Your task to perform on an android device: What is the recent news? Image 0: 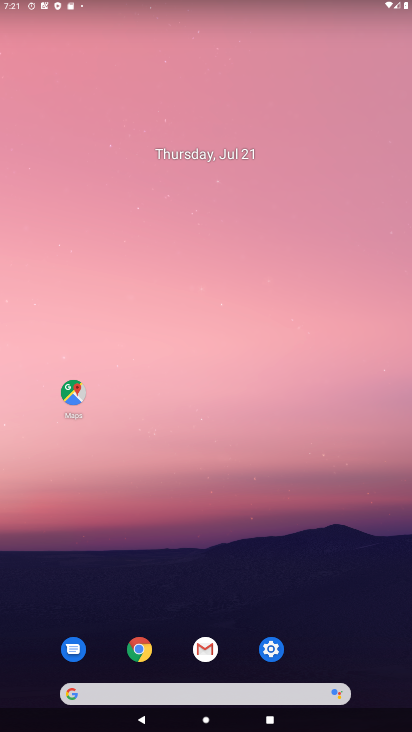
Step 0: click (216, 694)
Your task to perform on an android device: What is the recent news? Image 1: 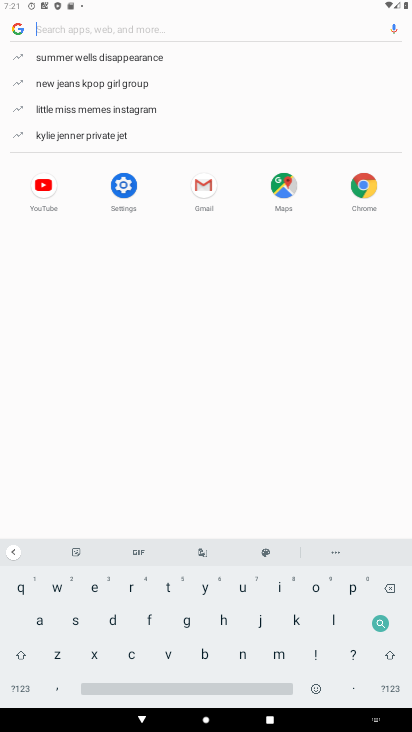
Step 1: click (127, 581)
Your task to perform on an android device: What is the recent news? Image 2: 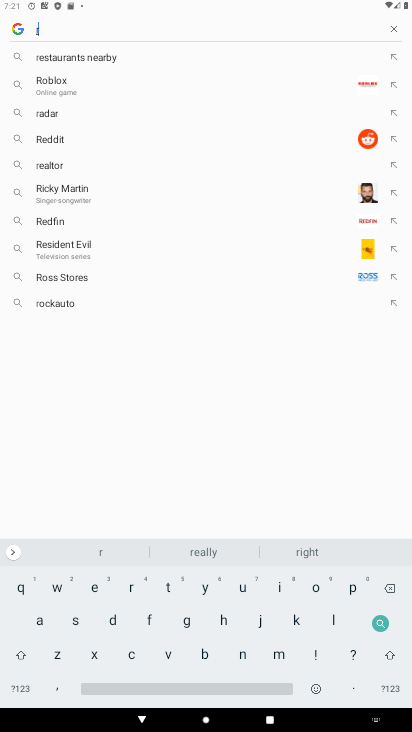
Step 2: click (93, 587)
Your task to perform on an android device: What is the recent news? Image 3: 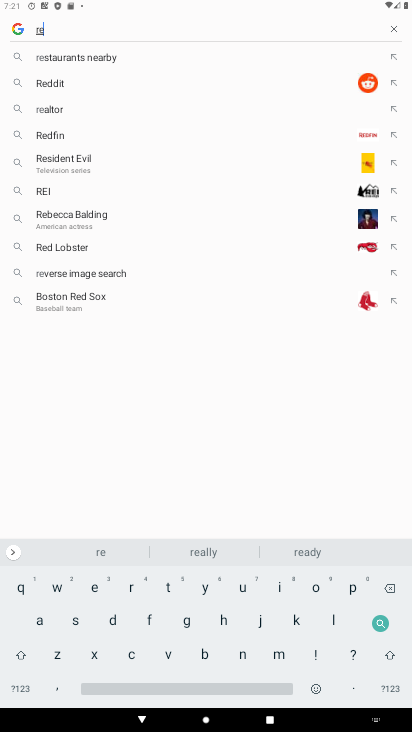
Step 3: click (125, 651)
Your task to perform on an android device: What is the recent news? Image 4: 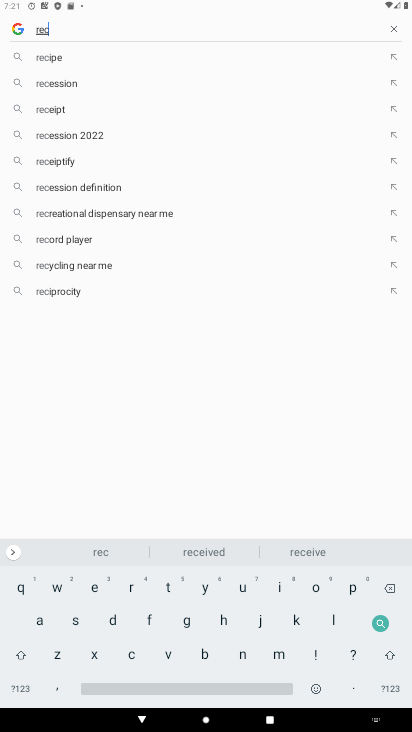
Step 4: click (95, 585)
Your task to perform on an android device: What is the recent news? Image 5: 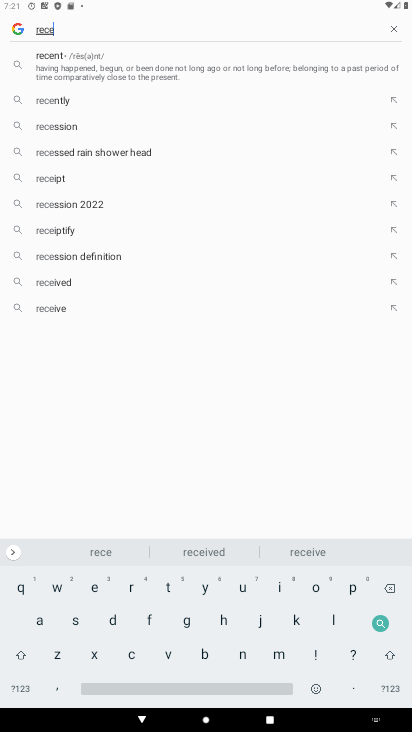
Step 5: click (244, 654)
Your task to perform on an android device: What is the recent news? Image 6: 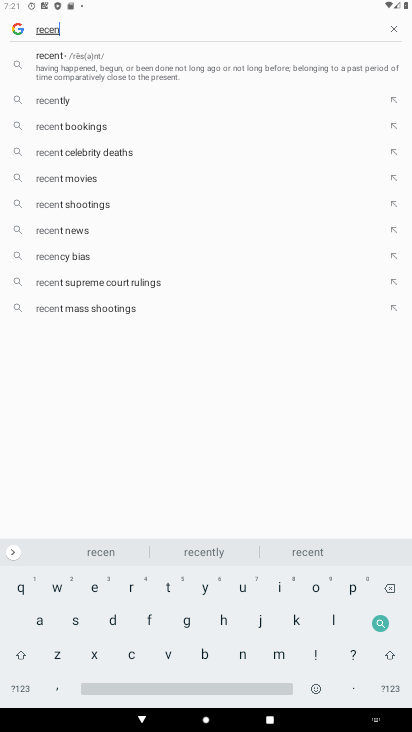
Step 6: click (303, 552)
Your task to perform on an android device: What is the recent news? Image 7: 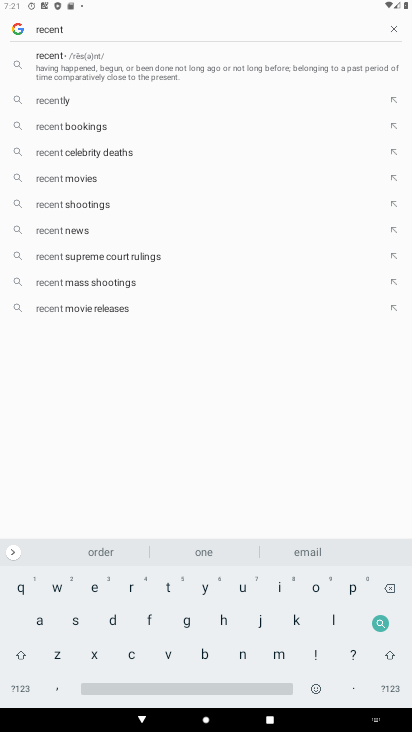
Step 7: click (82, 226)
Your task to perform on an android device: What is the recent news? Image 8: 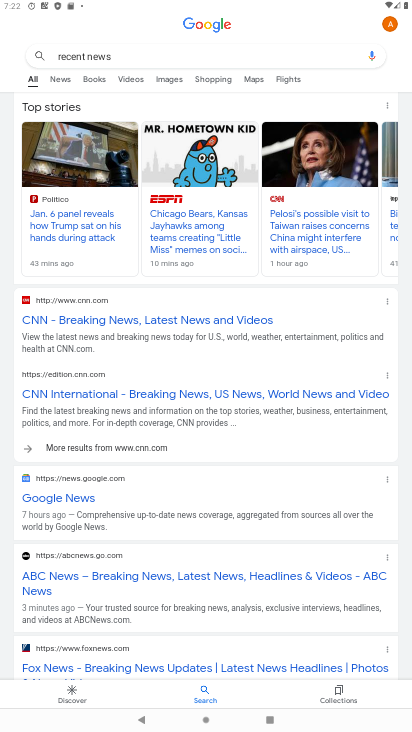
Step 8: task complete